Your task to perform on an android device: Show me popular videos on Youtube Image 0: 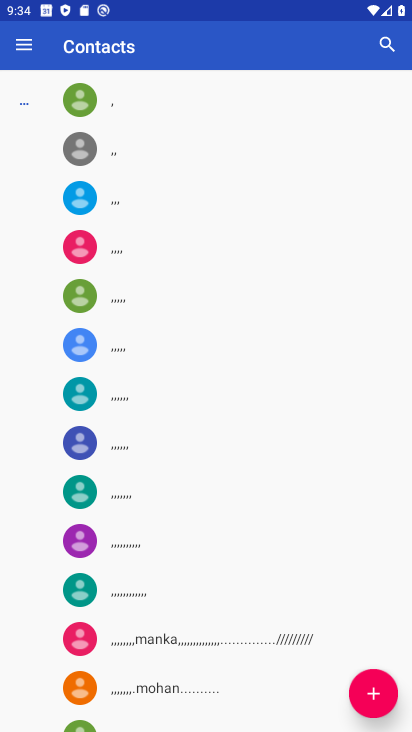
Step 0: press home button
Your task to perform on an android device: Show me popular videos on Youtube Image 1: 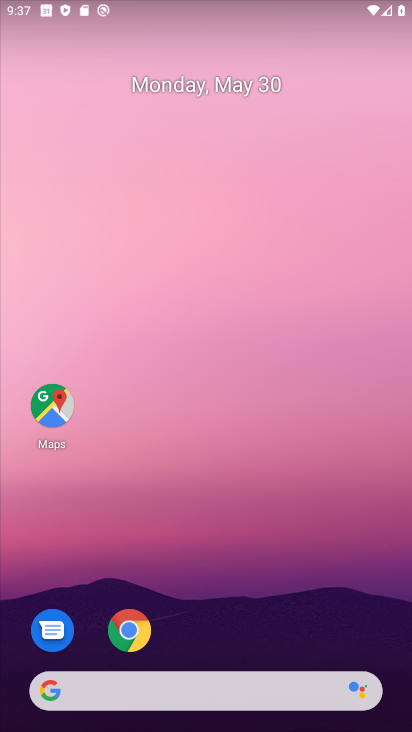
Step 1: task complete